Your task to perform on an android device: turn on the 24-hour format for clock Image 0: 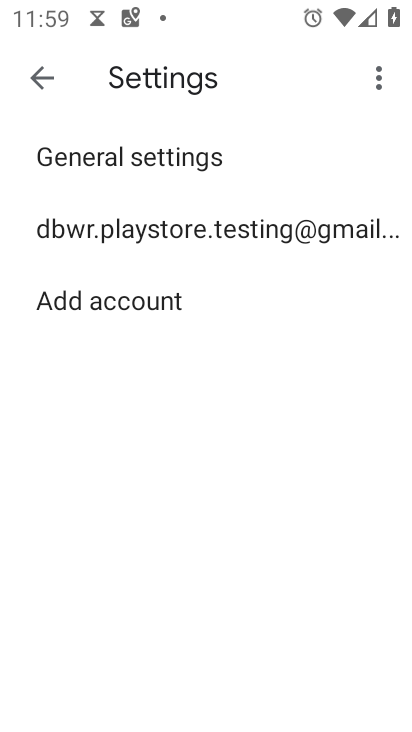
Step 0: press home button
Your task to perform on an android device: turn on the 24-hour format for clock Image 1: 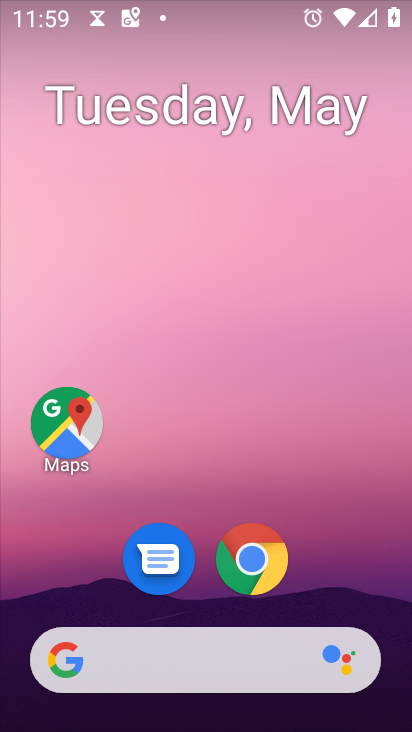
Step 1: drag from (375, 588) to (391, 12)
Your task to perform on an android device: turn on the 24-hour format for clock Image 2: 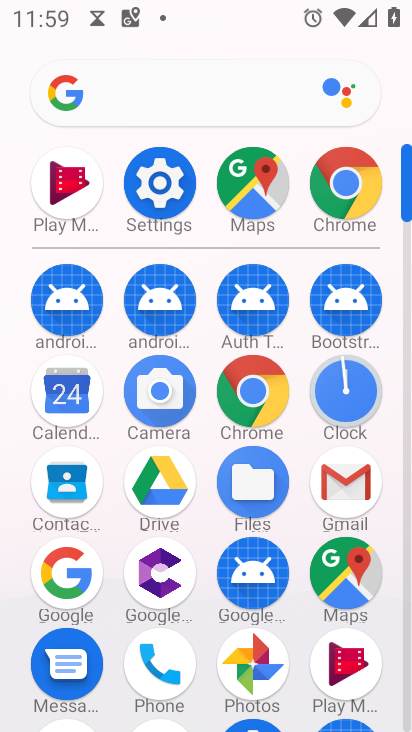
Step 2: click (355, 392)
Your task to perform on an android device: turn on the 24-hour format for clock Image 3: 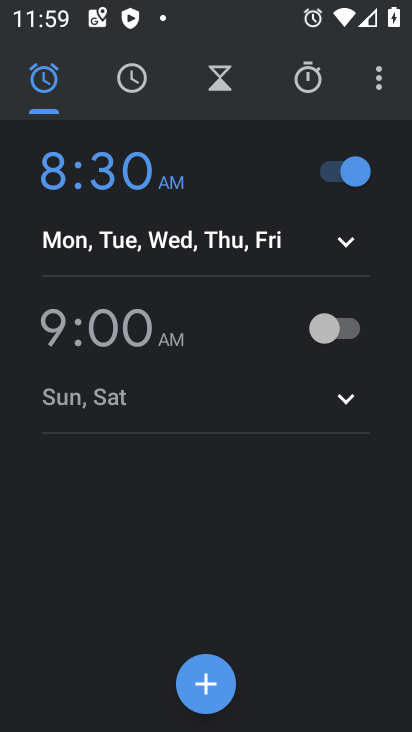
Step 3: click (375, 88)
Your task to perform on an android device: turn on the 24-hour format for clock Image 4: 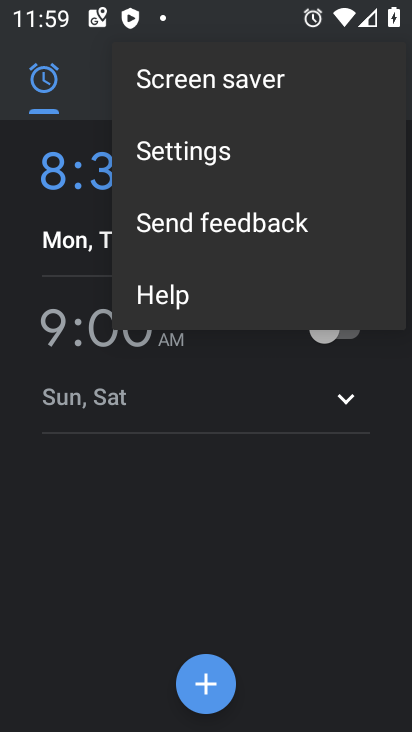
Step 4: click (205, 145)
Your task to perform on an android device: turn on the 24-hour format for clock Image 5: 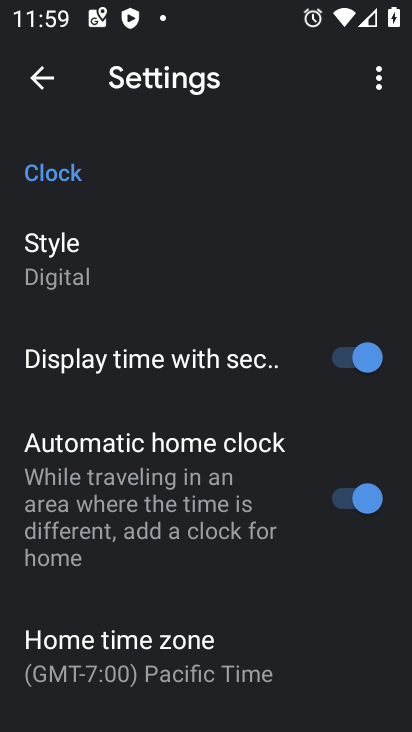
Step 5: drag from (179, 537) to (246, 186)
Your task to perform on an android device: turn on the 24-hour format for clock Image 6: 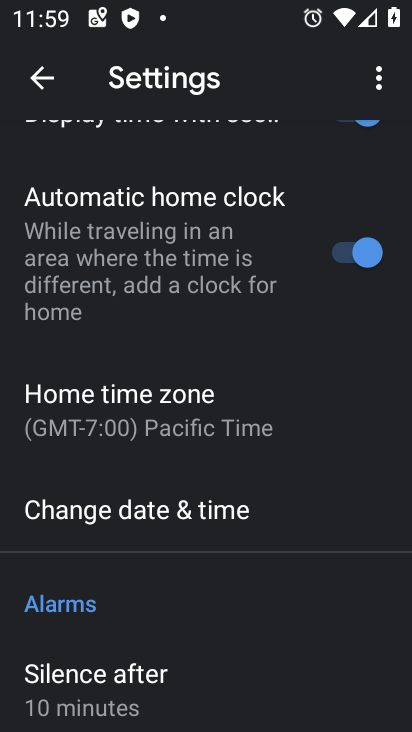
Step 6: click (137, 518)
Your task to perform on an android device: turn on the 24-hour format for clock Image 7: 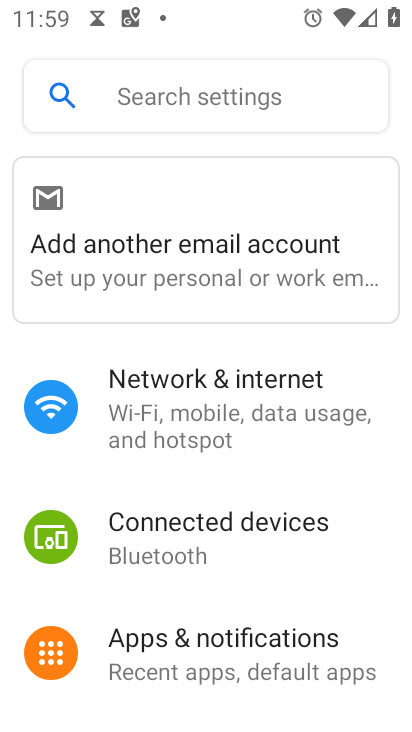
Step 7: drag from (186, 648) to (230, 213)
Your task to perform on an android device: turn on the 24-hour format for clock Image 8: 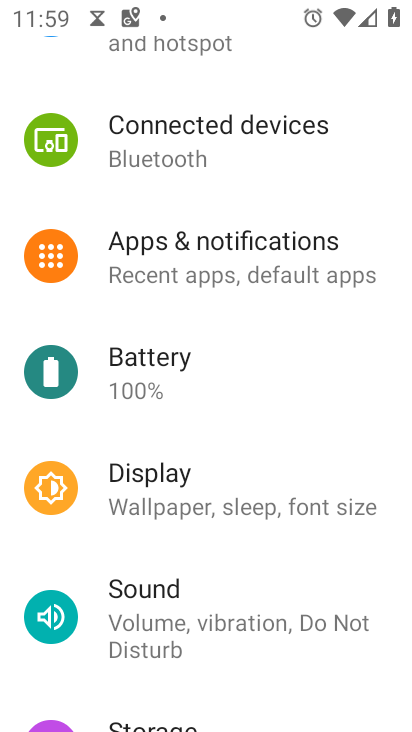
Step 8: drag from (207, 627) to (225, 110)
Your task to perform on an android device: turn on the 24-hour format for clock Image 9: 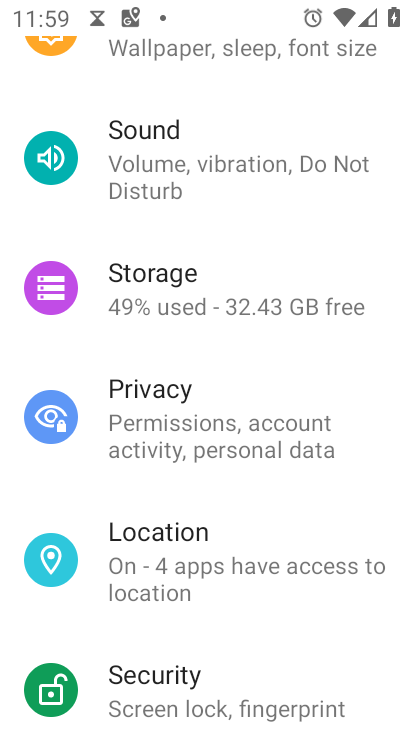
Step 9: press home button
Your task to perform on an android device: turn on the 24-hour format for clock Image 10: 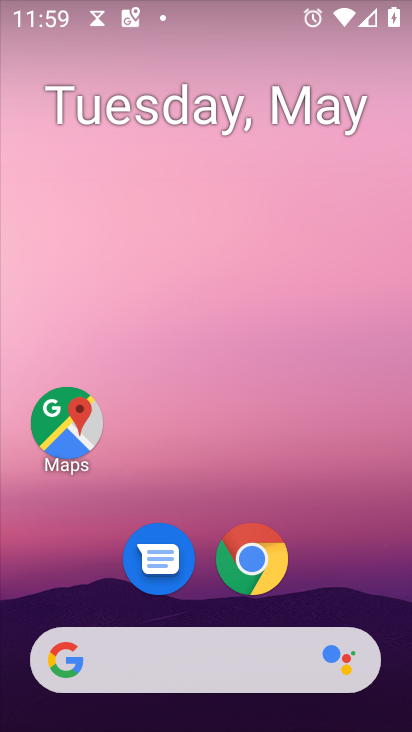
Step 10: drag from (302, 602) to (305, 110)
Your task to perform on an android device: turn on the 24-hour format for clock Image 11: 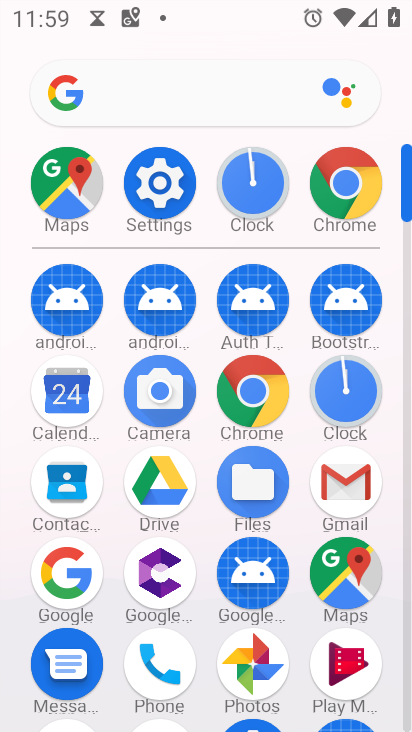
Step 11: click (348, 420)
Your task to perform on an android device: turn on the 24-hour format for clock Image 12: 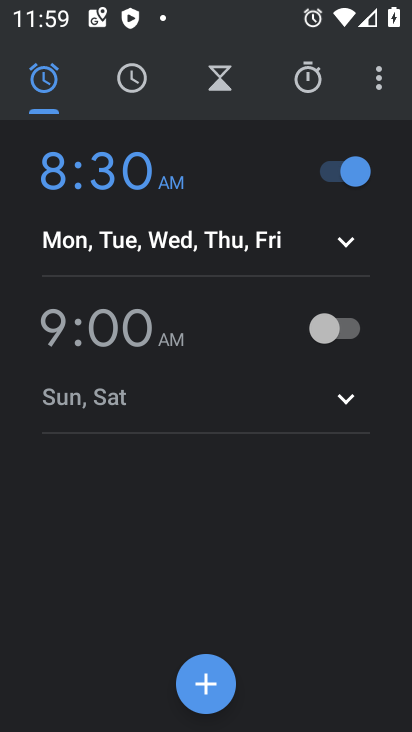
Step 12: click (381, 104)
Your task to perform on an android device: turn on the 24-hour format for clock Image 13: 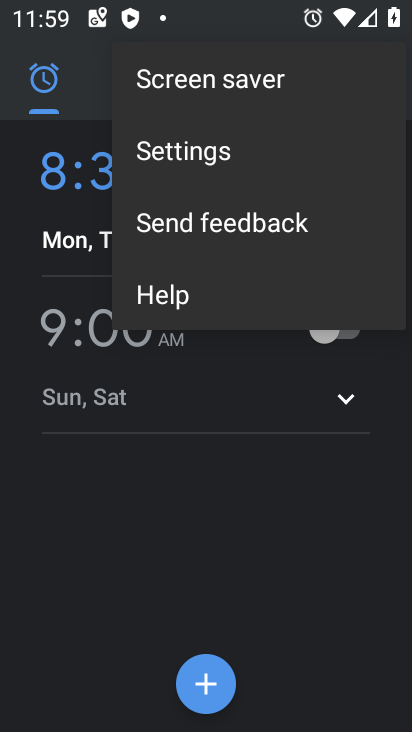
Step 13: click (217, 159)
Your task to perform on an android device: turn on the 24-hour format for clock Image 14: 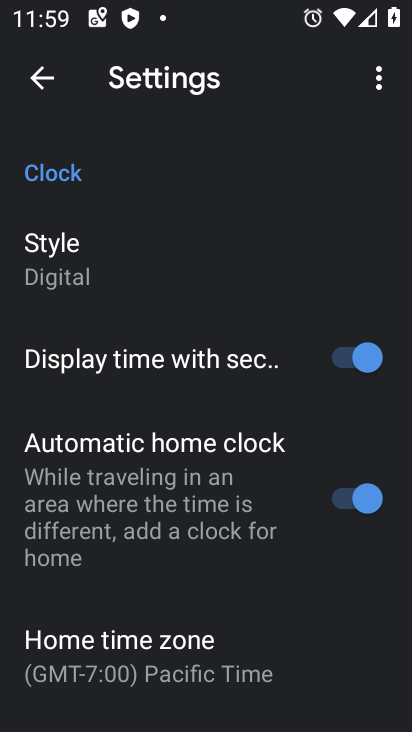
Step 14: drag from (188, 667) to (224, 153)
Your task to perform on an android device: turn on the 24-hour format for clock Image 15: 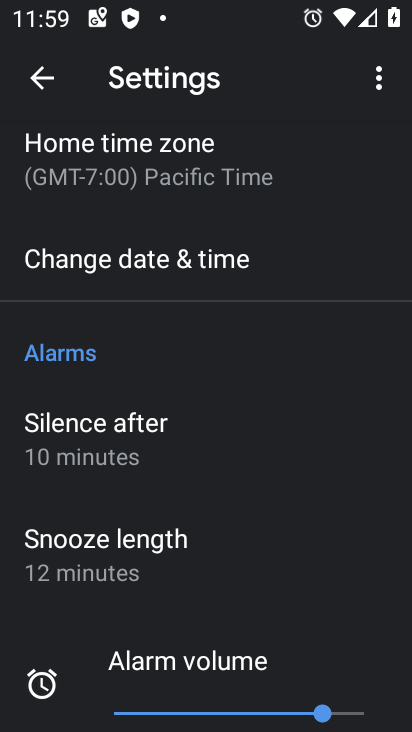
Step 15: click (158, 268)
Your task to perform on an android device: turn on the 24-hour format for clock Image 16: 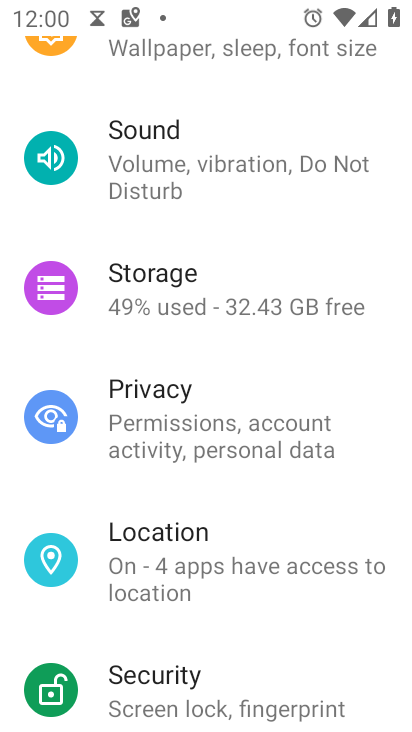
Step 16: drag from (219, 194) to (194, 683)
Your task to perform on an android device: turn on the 24-hour format for clock Image 17: 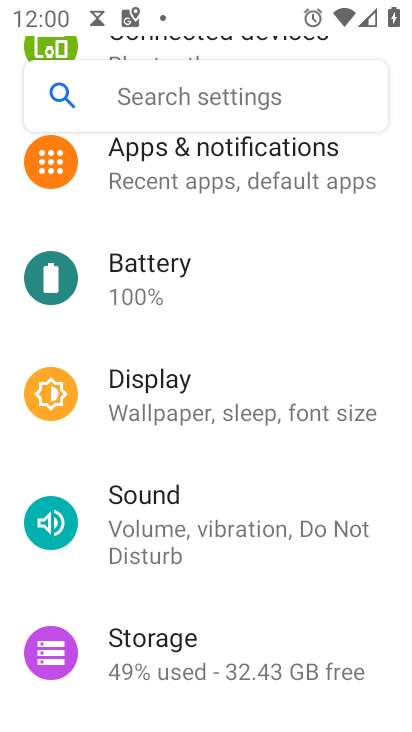
Step 17: drag from (246, 285) to (280, 701)
Your task to perform on an android device: turn on the 24-hour format for clock Image 18: 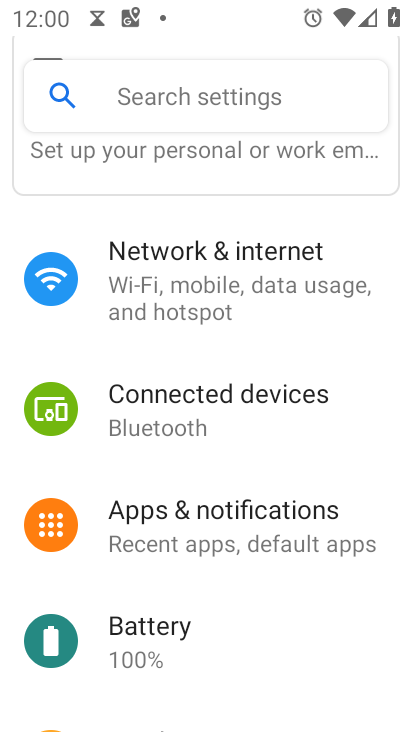
Step 18: press back button
Your task to perform on an android device: turn on the 24-hour format for clock Image 19: 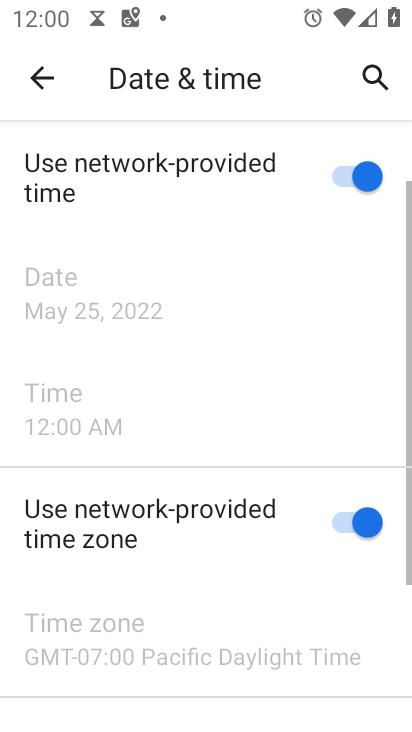
Step 19: press back button
Your task to perform on an android device: turn on the 24-hour format for clock Image 20: 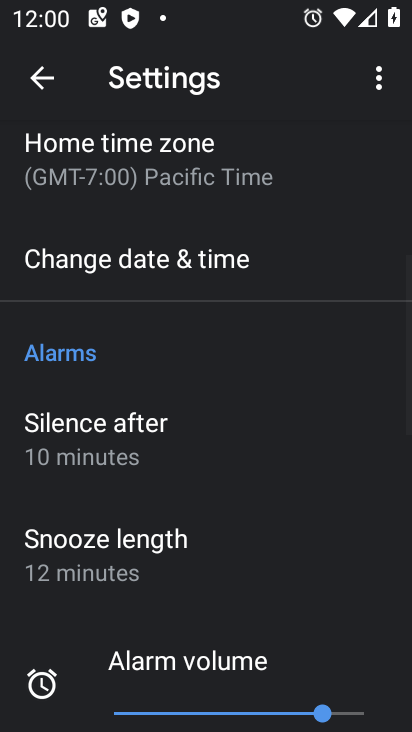
Step 20: press back button
Your task to perform on an android device: turn on the 24-hour format for clock Image 21: 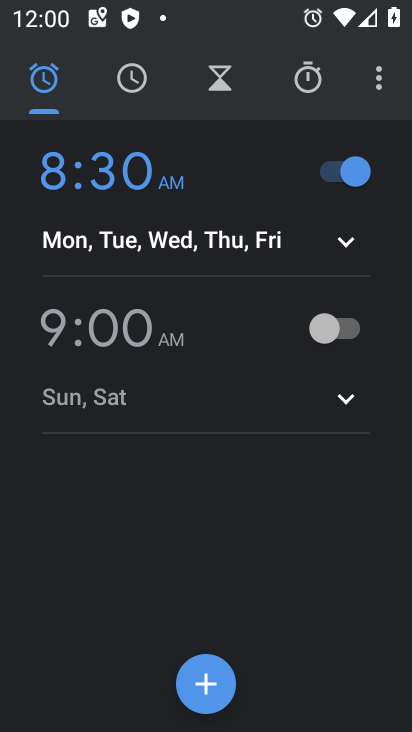
Step 21: click (389, 85)
Your task to perform on an android device: turn on the 24-hour format for clock Image 22: 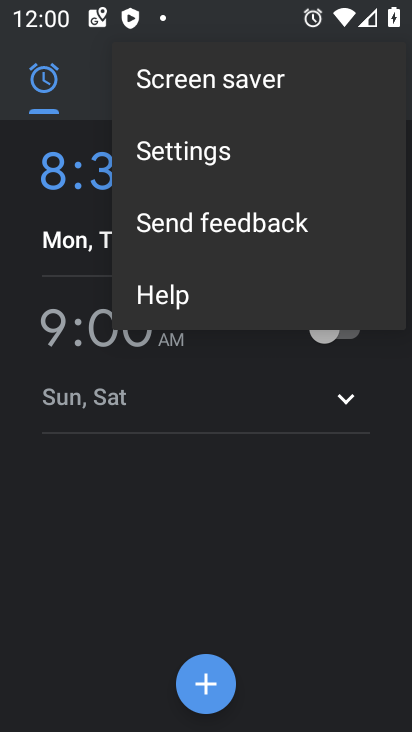
Step 22: click (198, 164)
Your task to perform on an android device: turn on the 24-hour format for clock Image 23: 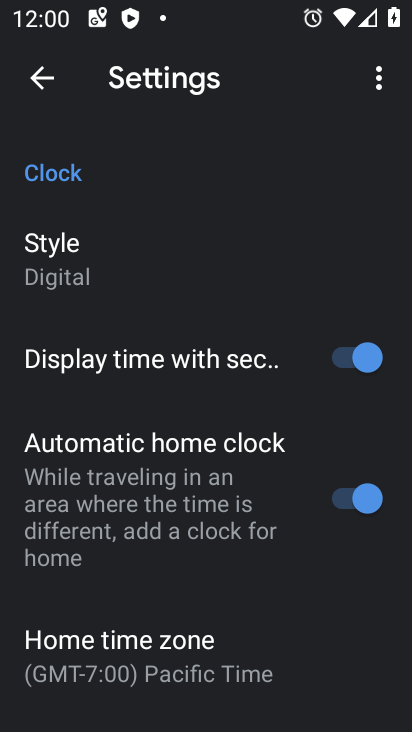
Step 23: drag from (128, 647) to (199, 183)
Your task to perform on an android device: turn on the 24-hour format for clock Image 24: 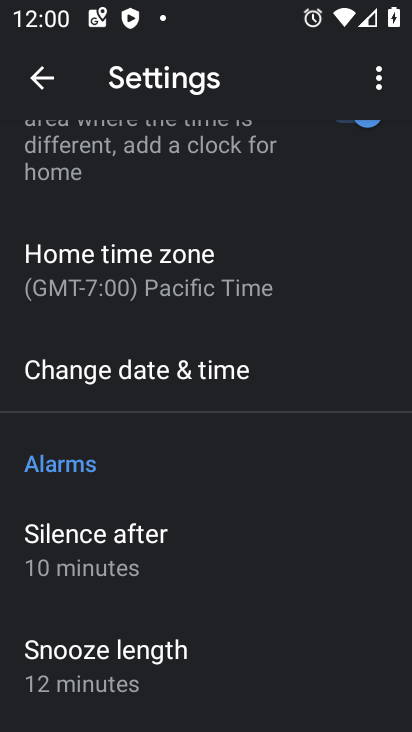
Step 24: click (146, 369)
Your task to perform on an android device: turn on the 24-hour format for clock Image 25: 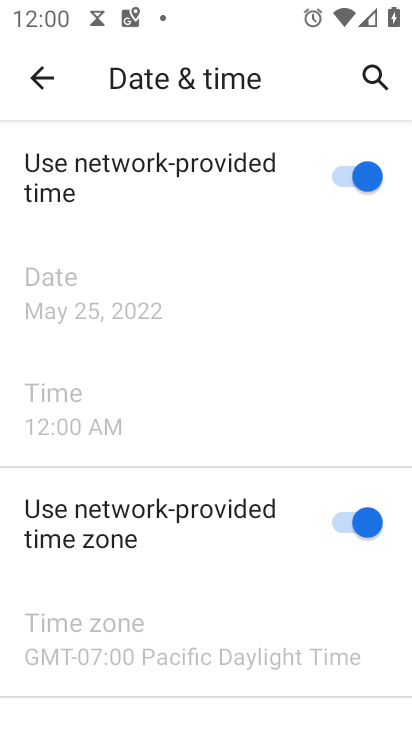
Step 25: drag from (192, 583) to (269, 110)
Your task to perform on an android device: turn on the 24-hour format for clock Image 26: 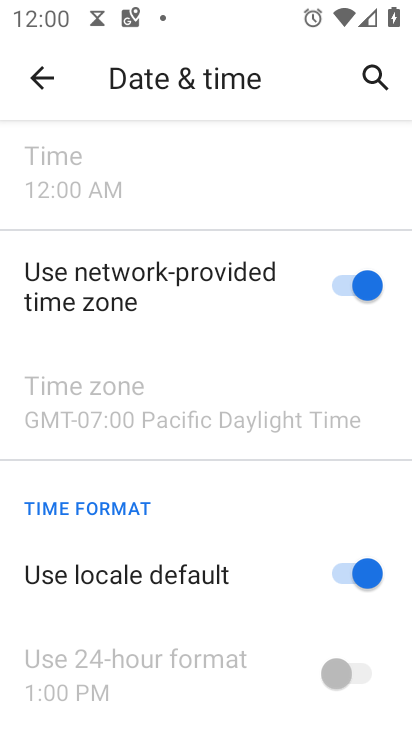
Step 26: click (337, 570)
Your task to perform on an android device: turn on the 24-hour format for clock Image 27: 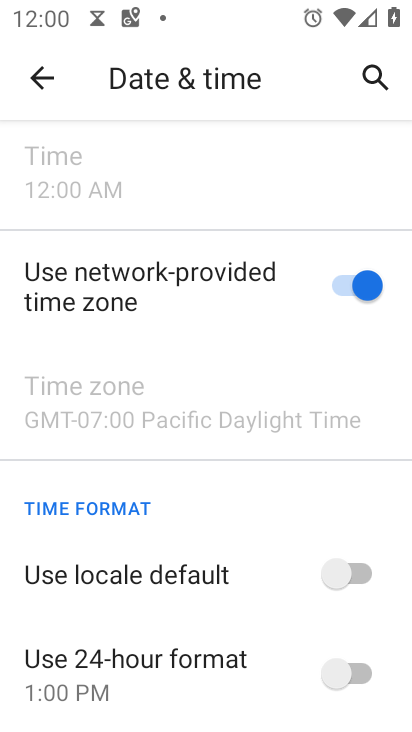
Step 27: task complete